Your task to perform on an android device: snooze an email in the gmail app Image 0: 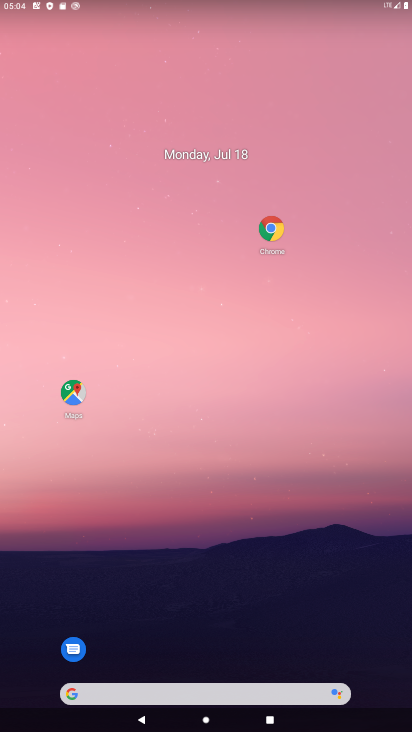
Step 0: drag from (197, 480) to (128, 6)
Your task to perform on an android device: snooze an email in the gmail app Image 1: 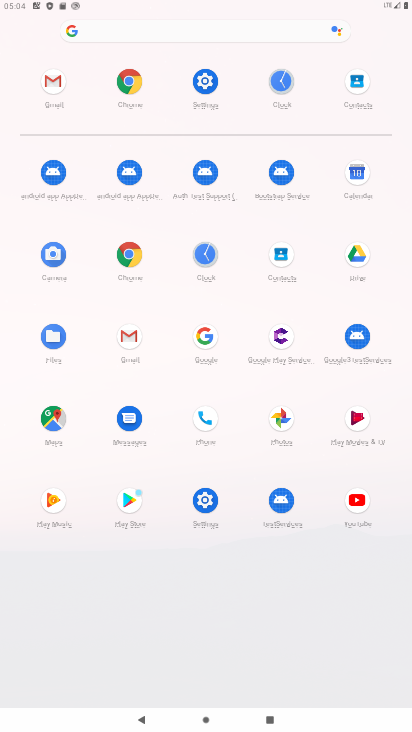
Step 1: click (39, 81)
Your task to perform on an android device: snooze an email in the gmail app Image 2: 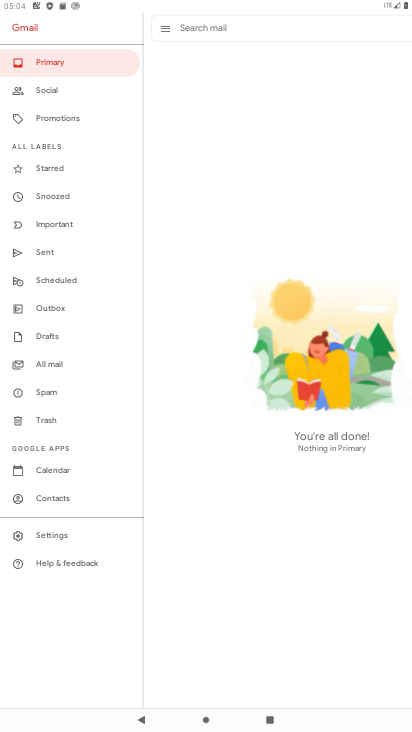
Step 2: task complete